Your task to perform on an android device: turn off notifications settings in the gmail app Image 0: 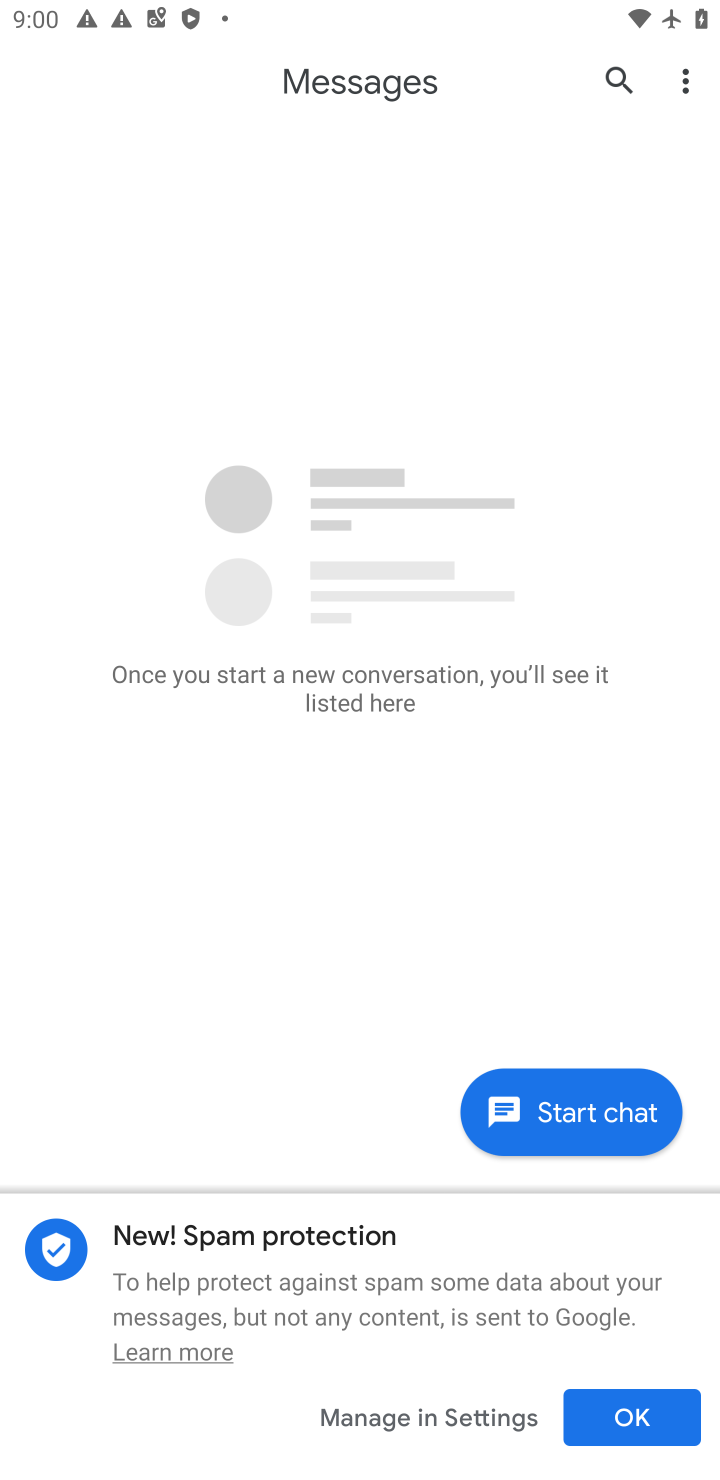
Step 0: press home button
Your task to perform on an android device: turn off notifications settings in the gmail app Image 1: 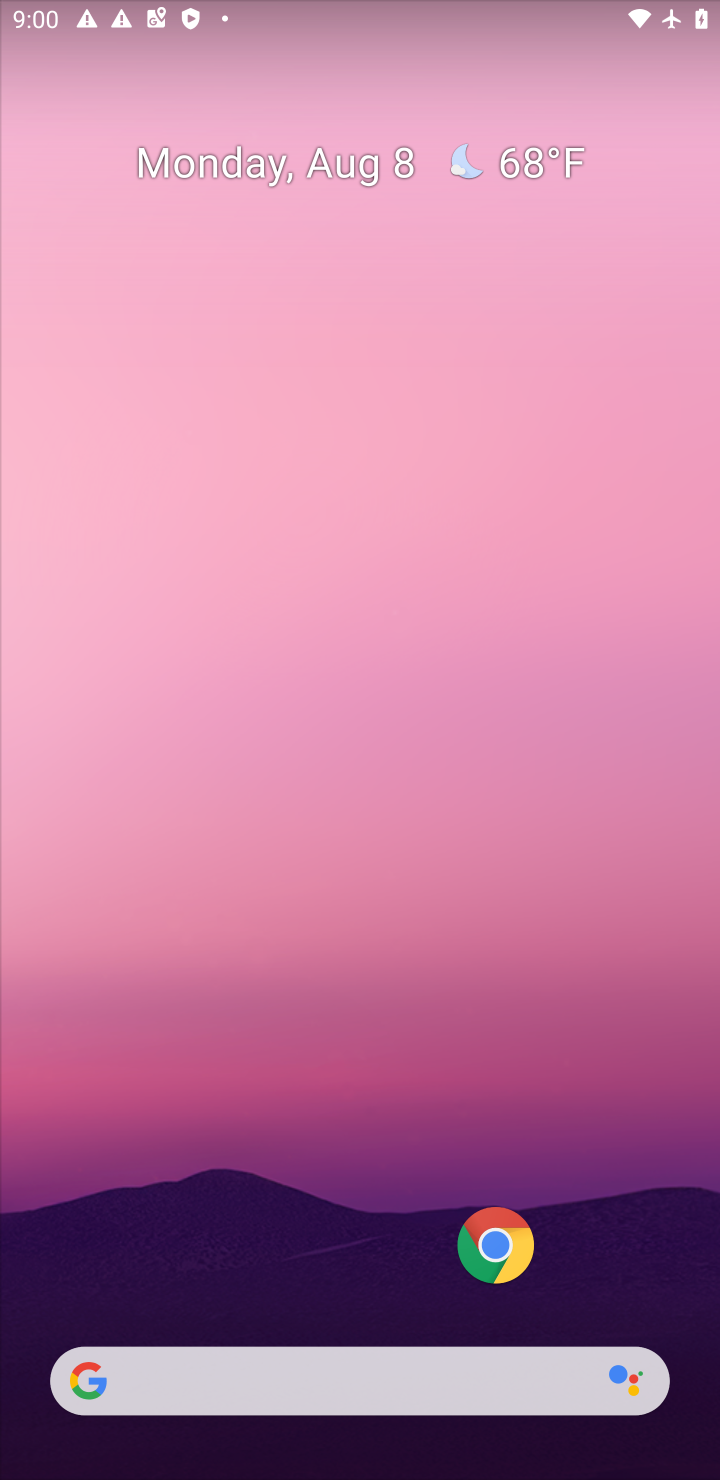
Step 1: drag from (293, 1300) to (262, 0)
Your task to perform on an android device: turn off notifications settings in the gmail app Image 2: 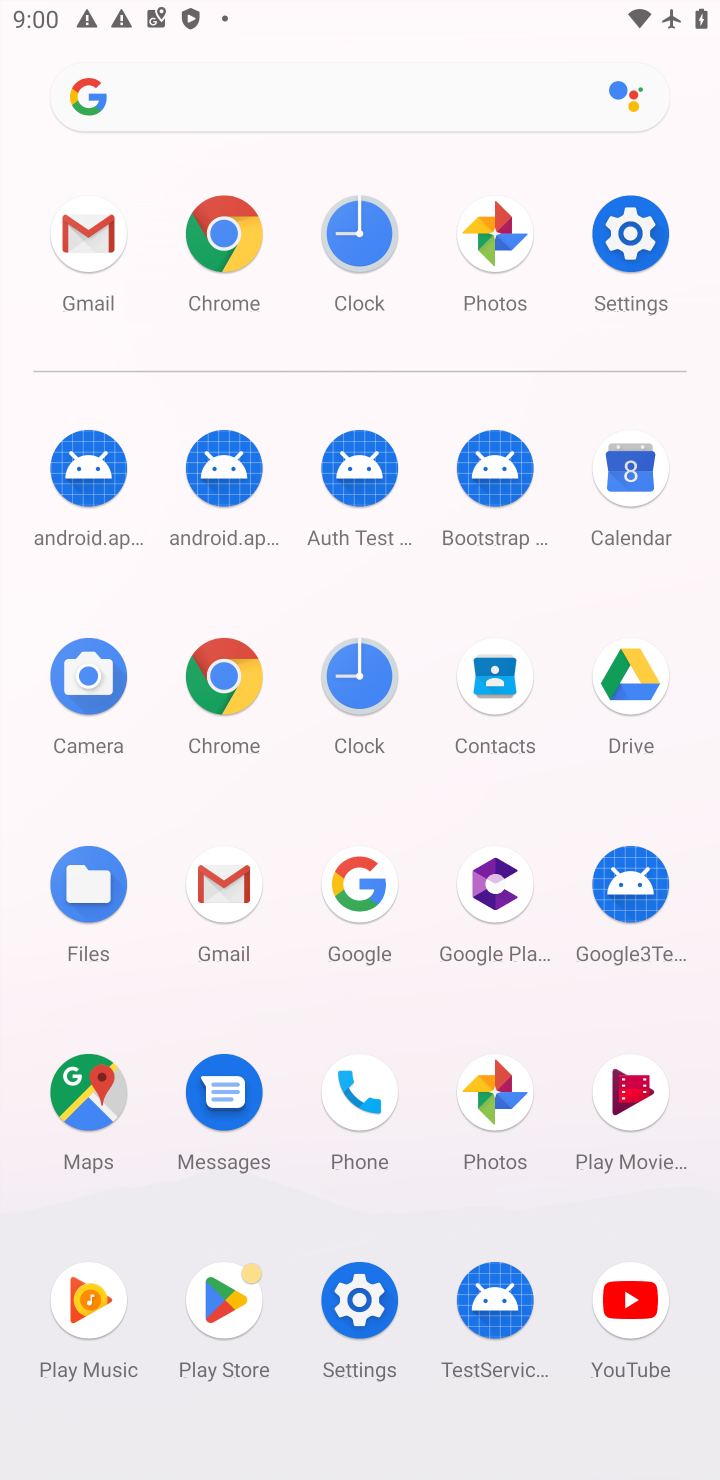
Step 2: click (220, 905)
Your task to perform on an android device: turn off notifications settings in the gmail app Image 3: 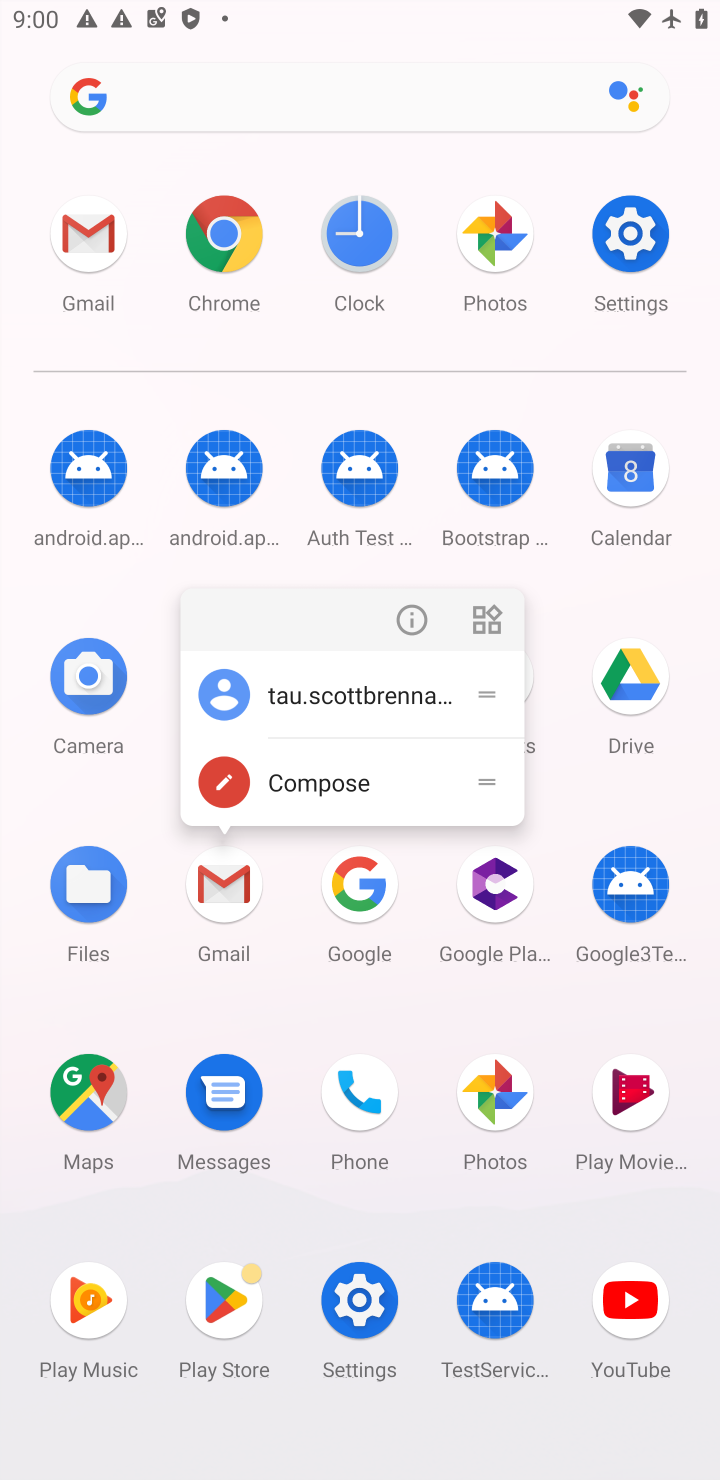
Step 3: click (224, 903)
Your task to perform on an android device: turn off notifications settings in the gmail app Image 4: 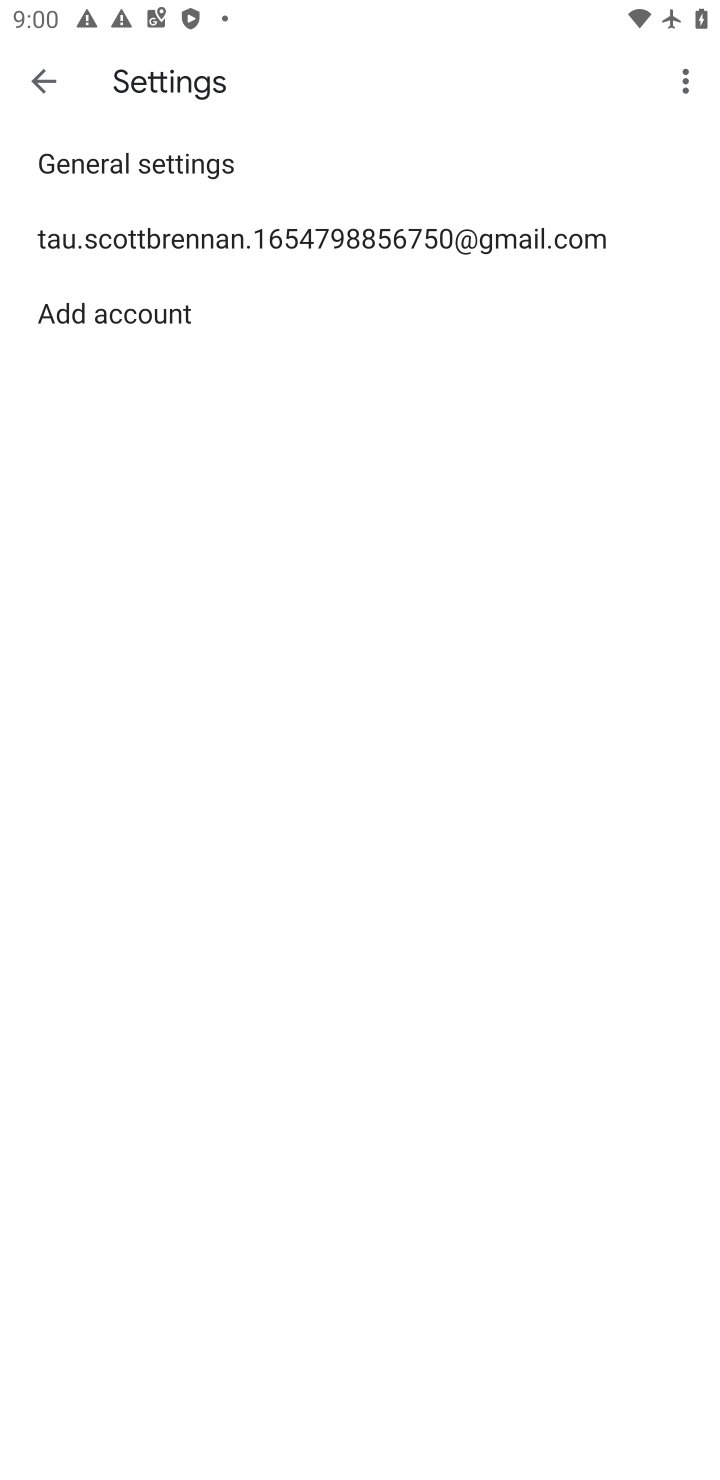
Step 4: click (86, 174)
Your task to perform on an android device: turn off notifications settings in the gmail app Image 5: 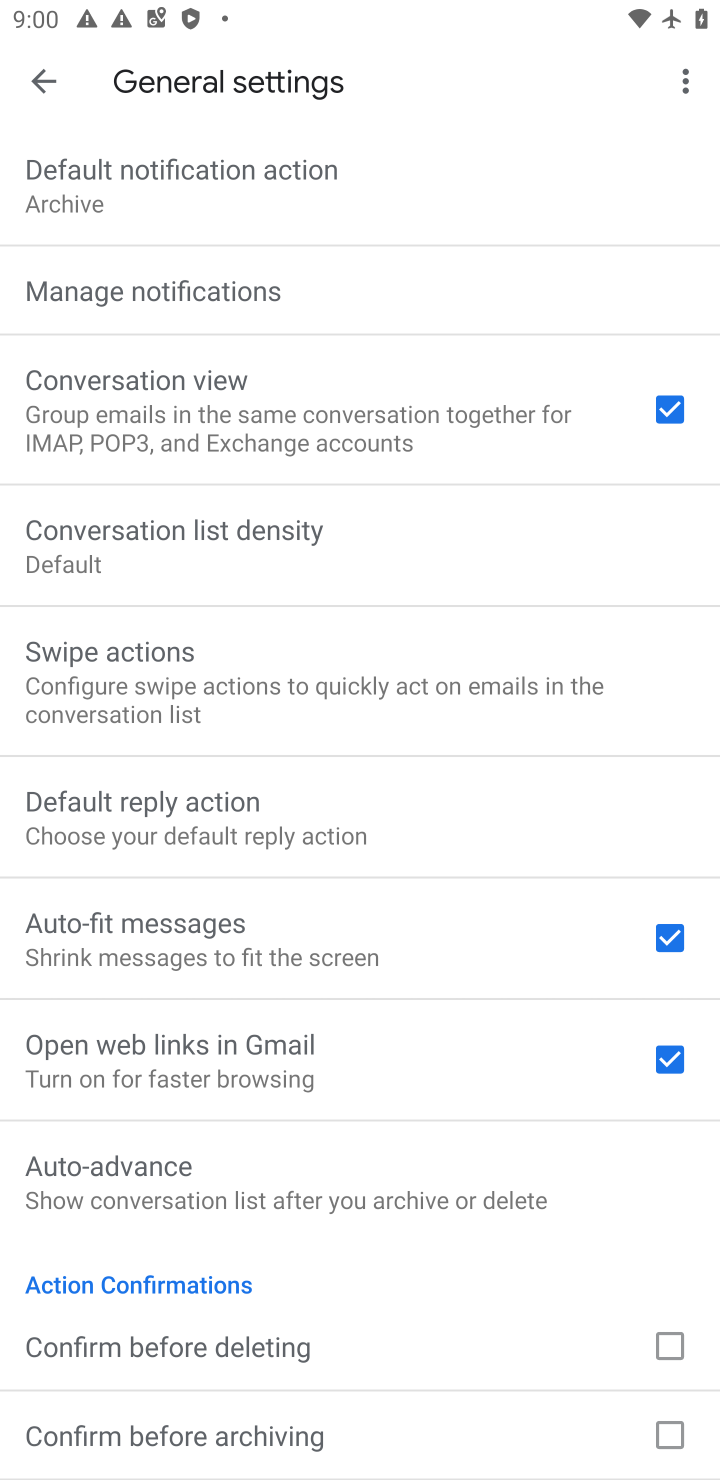
Step 5: click (193, 287)
Your task to perform on an android device: turn off notifications settings in the gmail app Image 6: 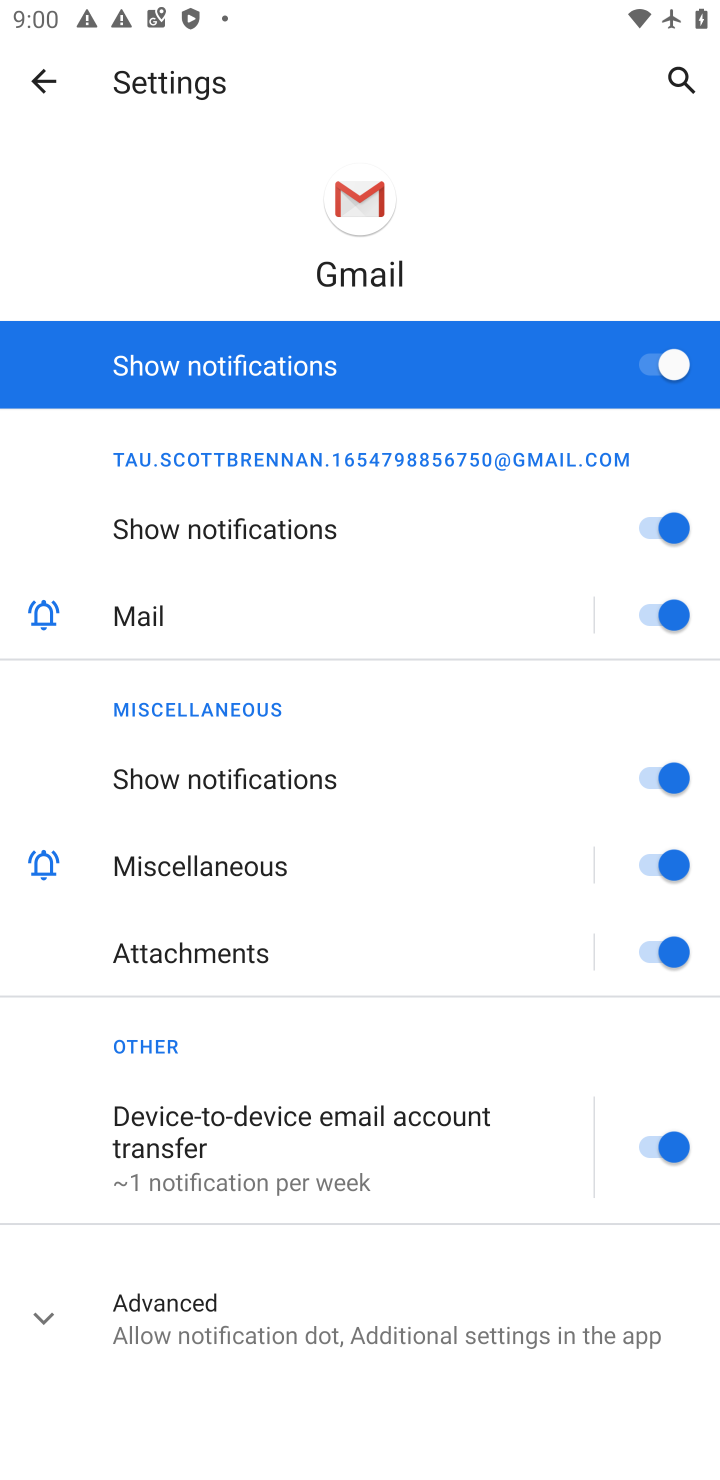
Step 6: click (633, 330)
Your task to perform on an android device: turn off notifications settings in the gmail app Image 7: 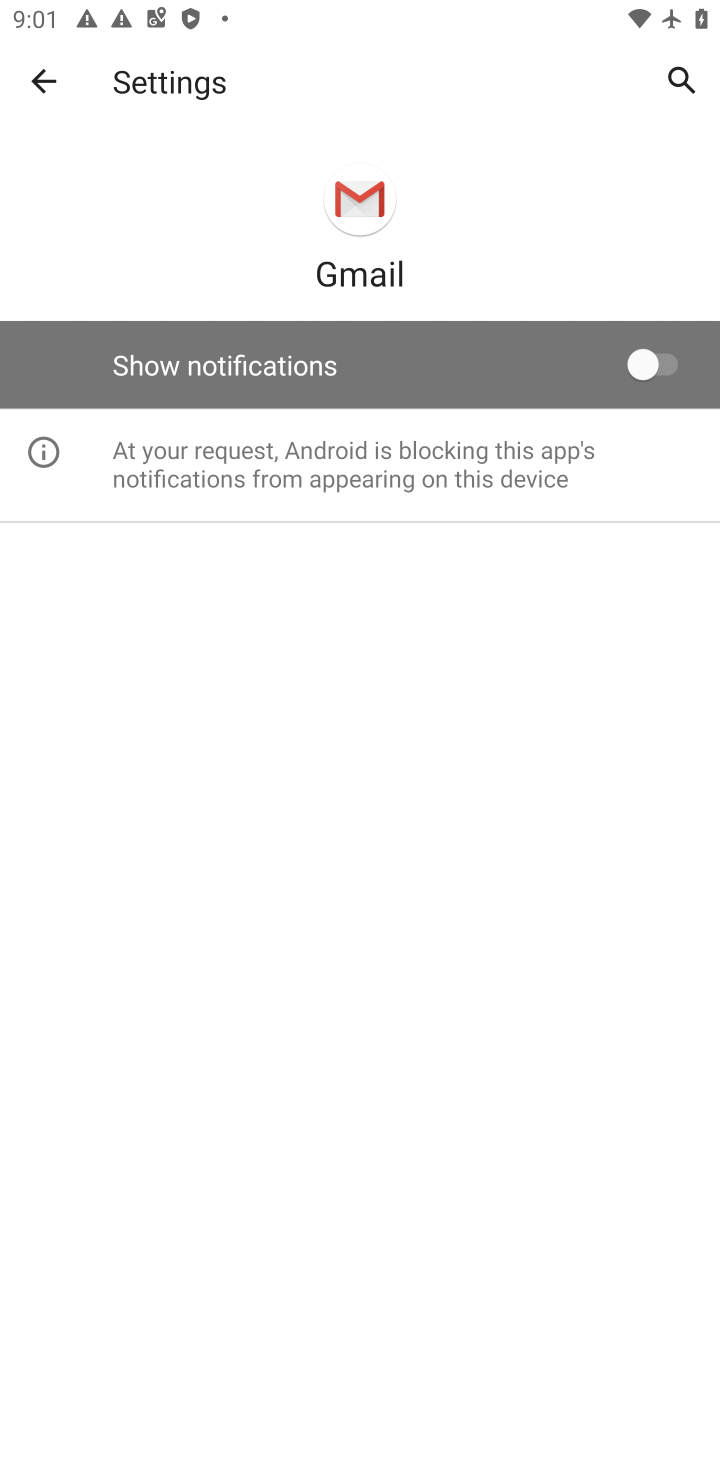
Step 7: task complete